Your task to perform on an android device: Go to network settings Image 0: 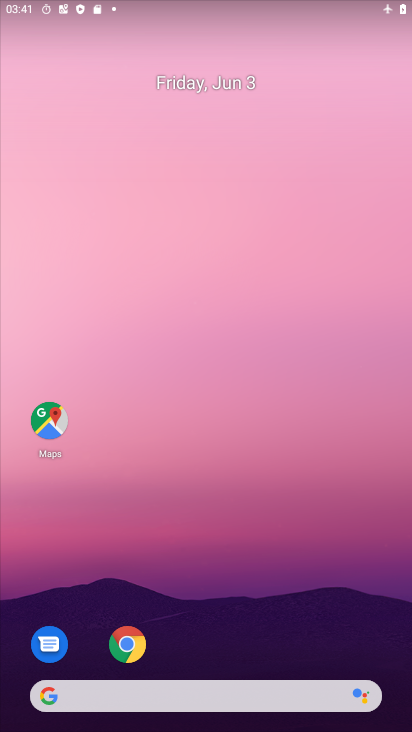
Step 0: drag from (193, 652) to (207, 186)
Your task to perform on an android device: Go to network settings Image 1: 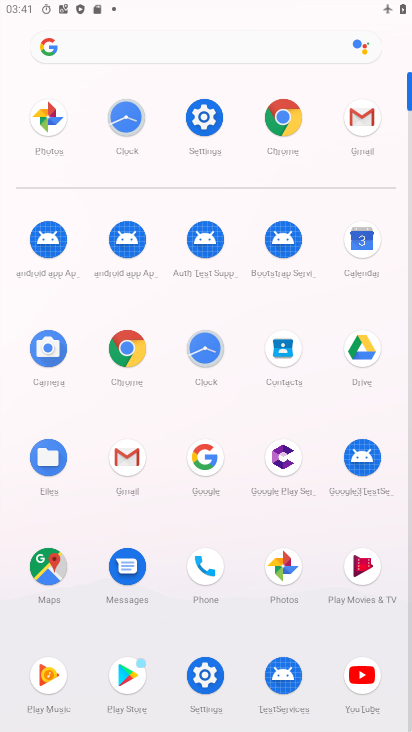
Step 1: click (202, 132)
Your task to perform on an android device: Go to network settings Image 2: 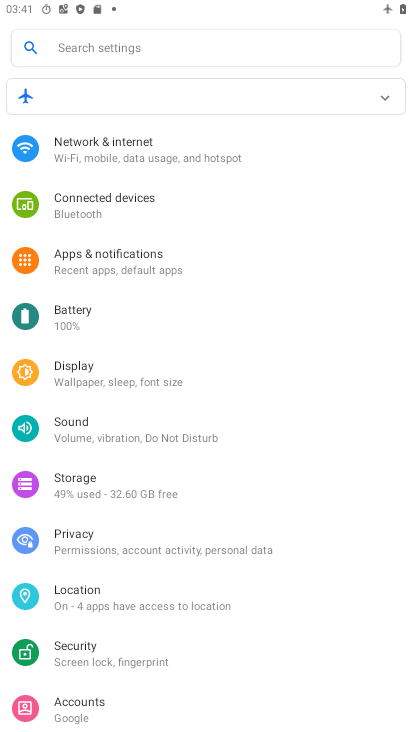
Step 2: click (183, 143)
Your task to perform on an android device: Go to network settings Image 3: 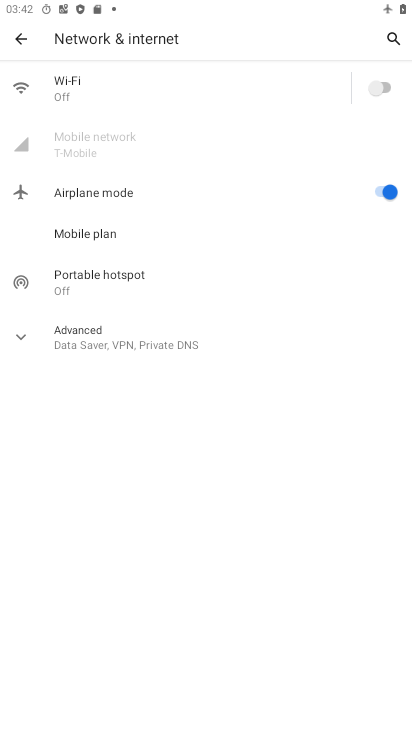
Step 3: task complete